Your task to perform on an android device: Open settings on Google Maps Image 0: 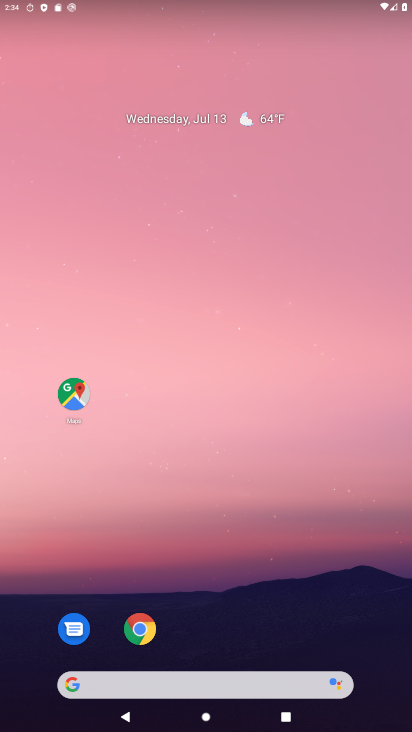
Step 0: drag from (228, 687) to (206, 112)
Your task to perform on an android device: Open settings on Google Maps Image 1: 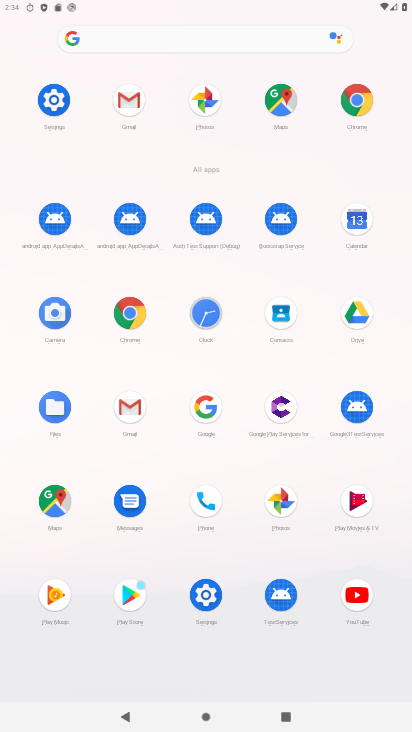
Step 1: click (58, 500)
Your task to perform on an android device: Open settings on Google Maps Image 2: 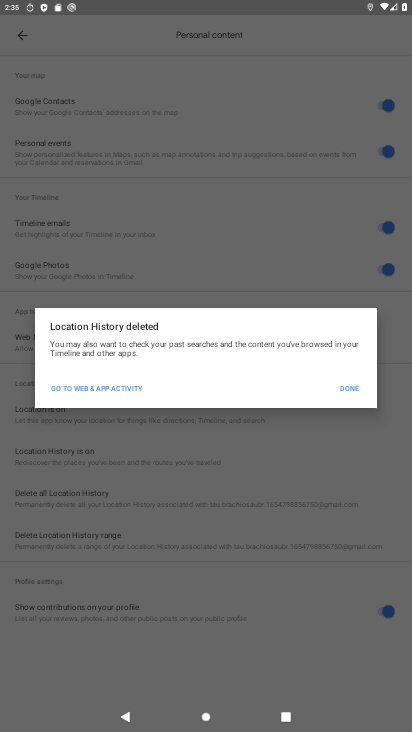
Step 2: click (358, 387)
Your task to perform on an android device: Open settings on Google Maps Image 3: 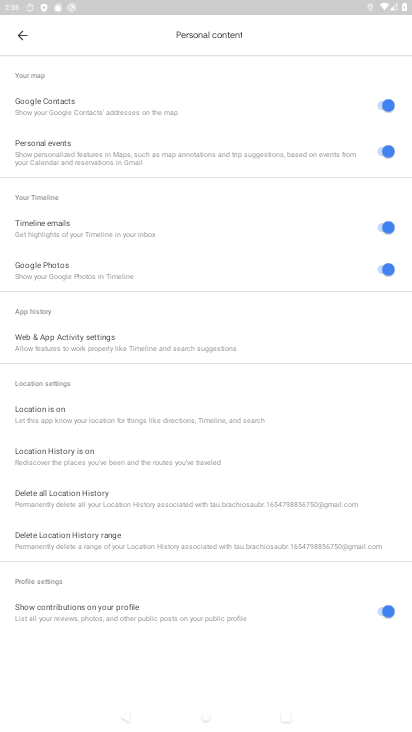
Step 3: press back button
Your task to perform on an android device: Open settings on Google Maps Image 4: 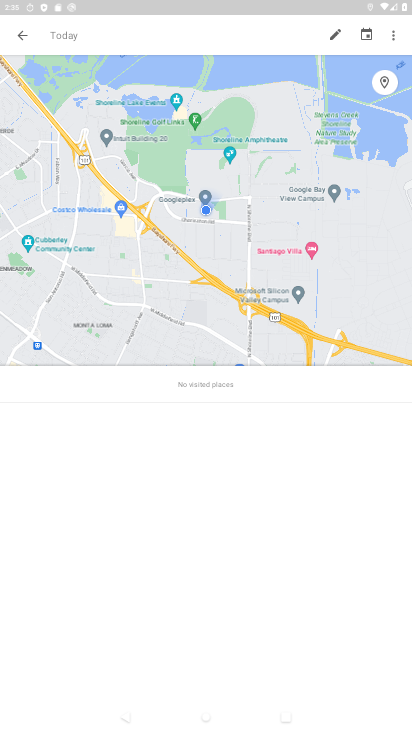
Step 4: click (393, 30)
Your task to perform on an android device: Open settings on Google Maps Image 5: 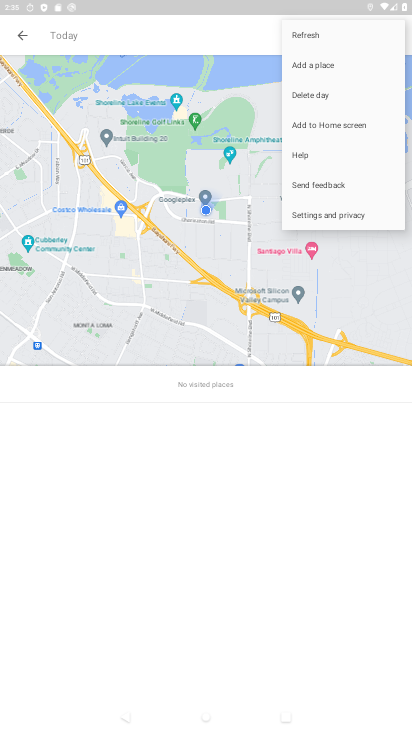
Step 5: click (323, 216)
Your task to perform on an android device: Open settings on Google Maps Image 6: 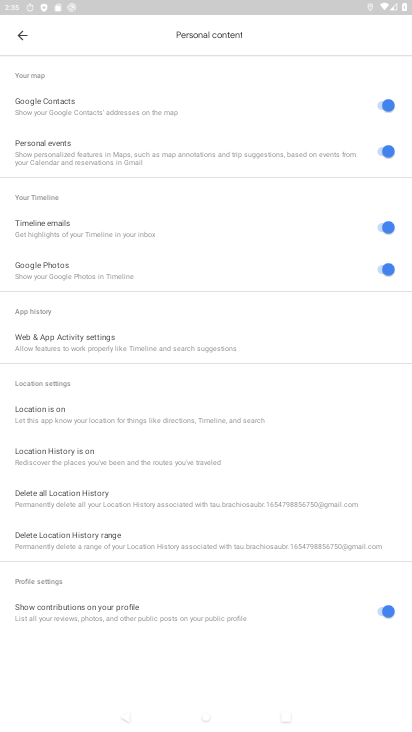
Step 6: task complete